Your task to perform on an android device: visit the assistant section in the google photos Image 0: 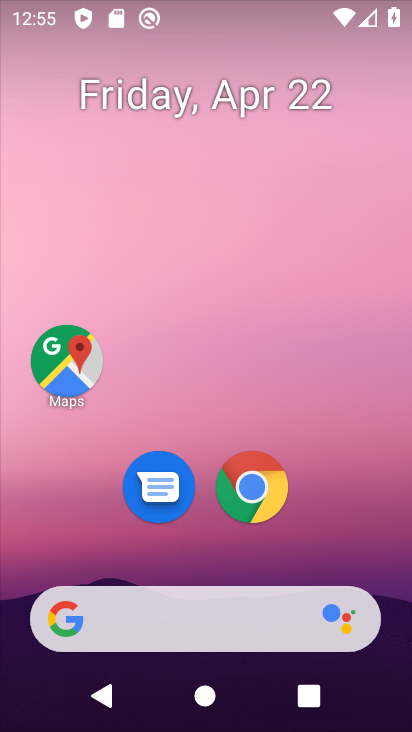
Step 0: drag from (205, 566) to (239, 201)
Your task to perform on an android device: visit the assistant section in the google photos Image 1: 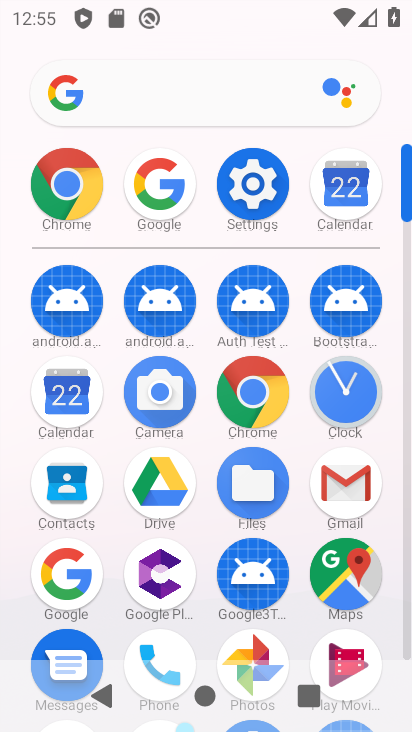
Step 1: click (242, 639)
Your task to perform on an android device: visit the assistant section in the google photos Image 2: 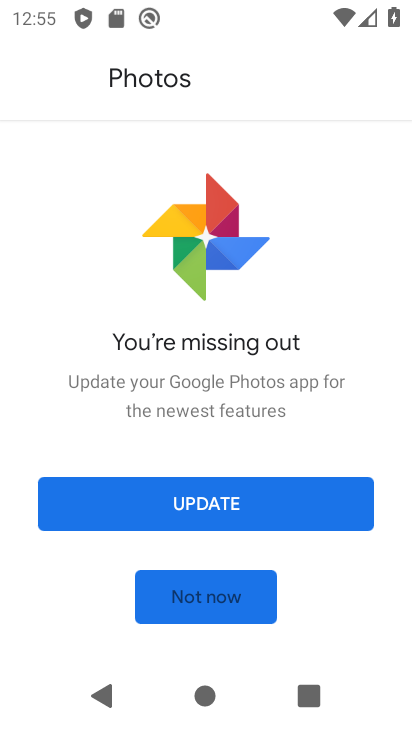
Step 2: click (192, 594)
Your task to perform on an android device: visit the assistant section in the google photos Image 3: 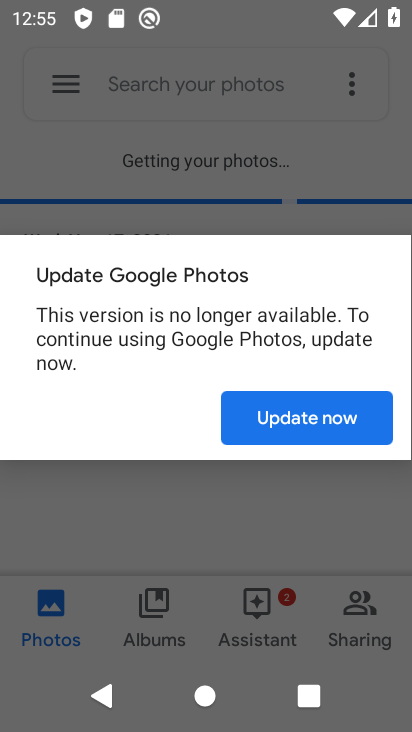
Step 3: click (264, 411)
Your task to perform on an android device: visit the assistant section in the google photos Image 4: 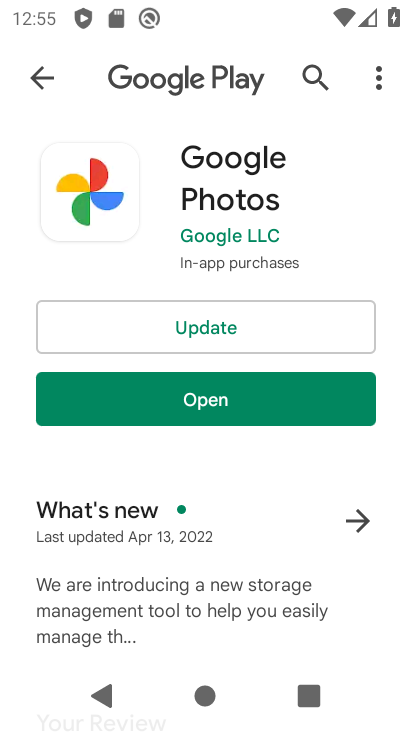
Step 4: click (228, 391)
Your task to perform on an android device: visit the assistant section in the google photos Image 5: 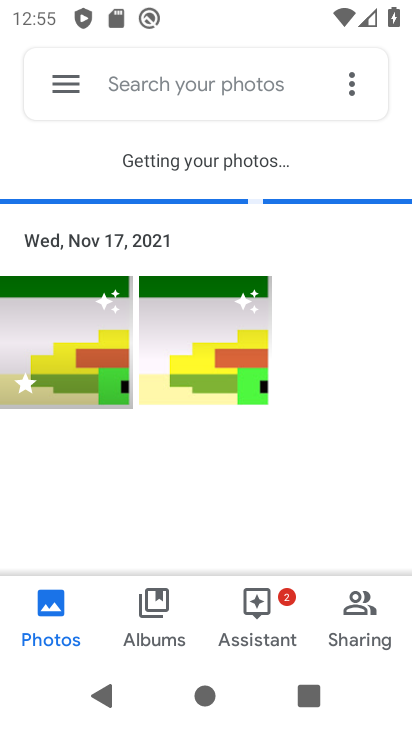
Step 5: click (266, 611)
Your task to perform on an android device: visit the assistant section in the google photos Image 6: 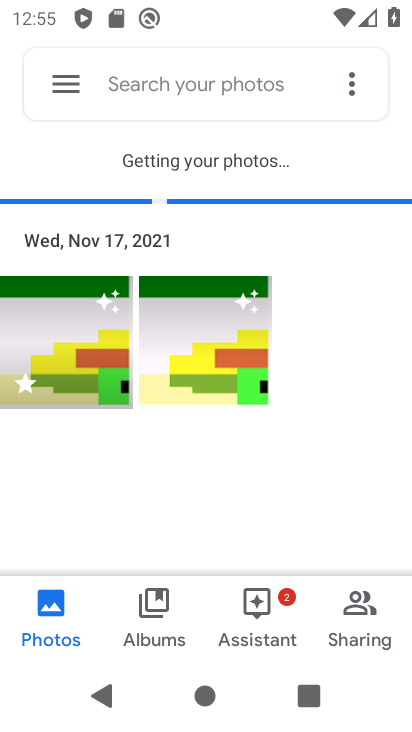
Step 6: click (252, 616)
Your task to perform on an android device: visit the assistant section in the google photos Image 7: 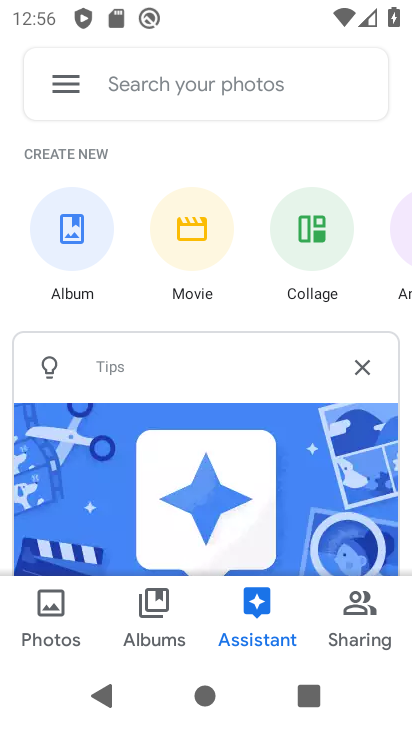
Step 7: task complete